Your task to perform on an android device: turn off airplane mode Image 0: 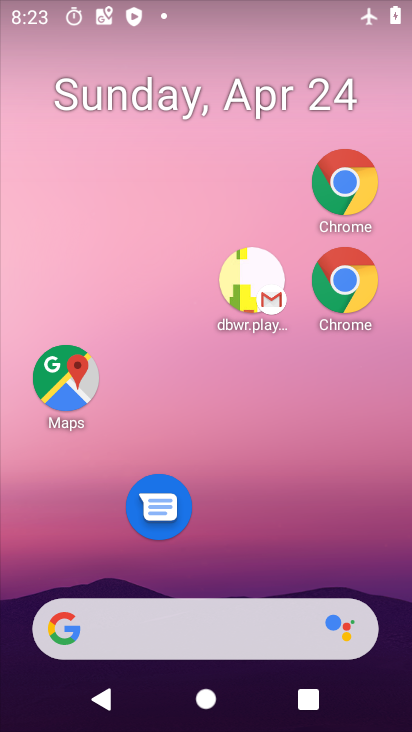
Step 0: drag from (240, 659) to (236, 101)
Your task to perform on an android device: turn off airplane mode Image 1: 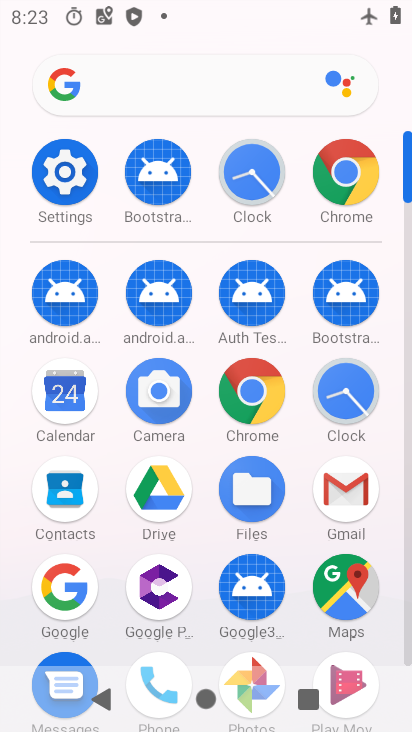
Step 1: click (66, 165)
Your task to perform on an android device: turn off airplane mode Image 2: 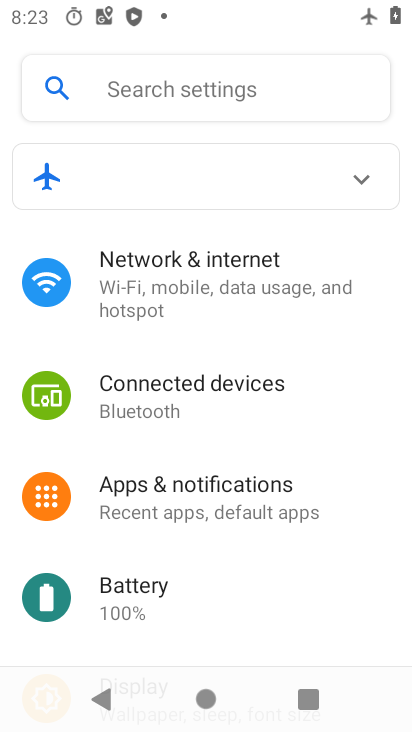
Step 2: click (243, 269)
Your task to perform on an android device: turn off airplane mode Image 3: 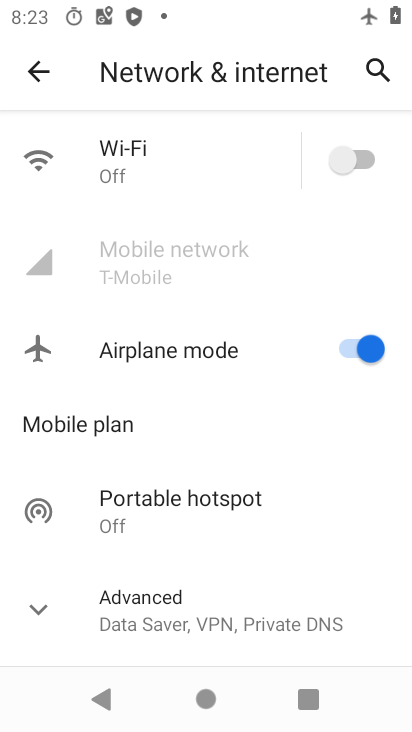
Step 3: click (364, 350)
Your task to perform on an android device: turn off airplane mode Image 4: 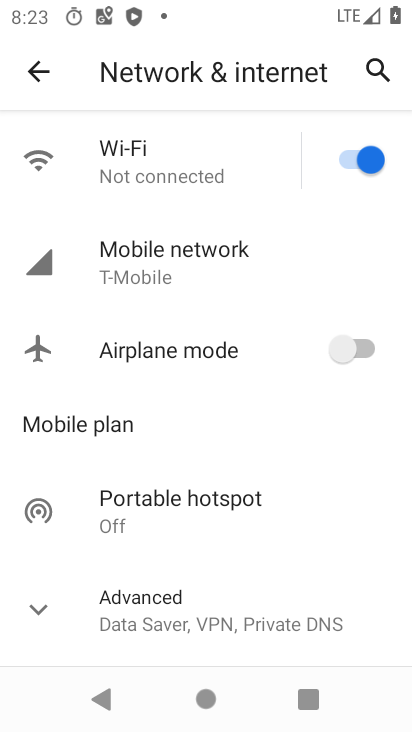
Step 4: task complete